Your task to perform on an android device: open the mobile data screen to see how much data has been used Image 0: 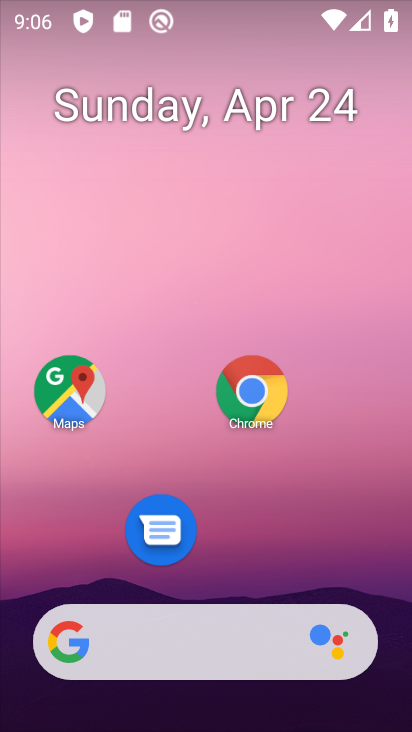
Step 0: drag from (219, 578) to (179, 32)
Your task to perform on an android device: open the mobile data screen to see how much data has been used Image 1: 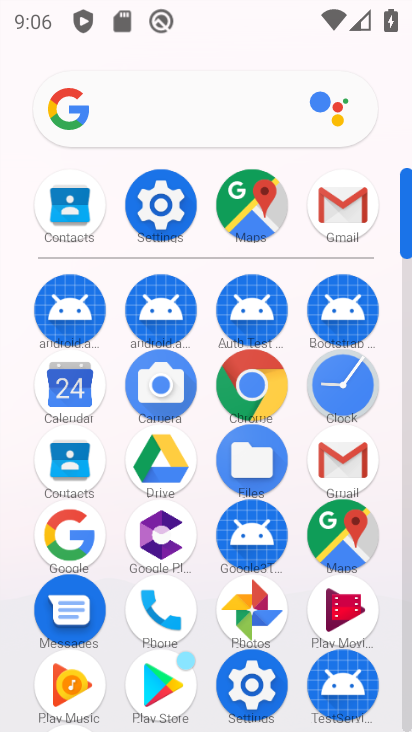
Step 1: click (144, 205)
Your task to perform on an android device: open the mobile data screen to see how much data has been used Image 2: 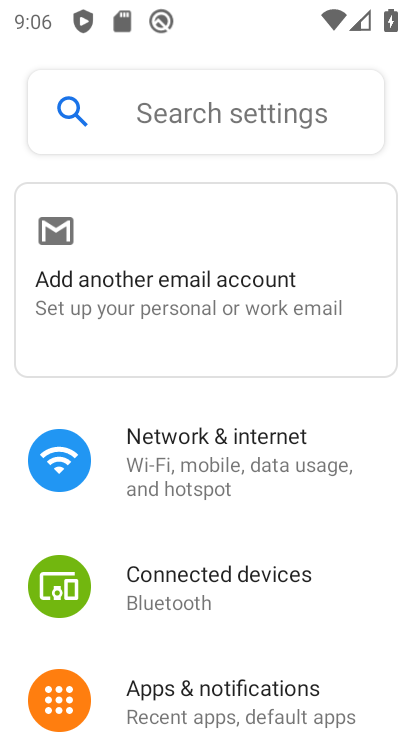
Step 2: click (186, 487)
Your task to perform on an android device: open the mobile data screen to see how much data has been used Image 3: 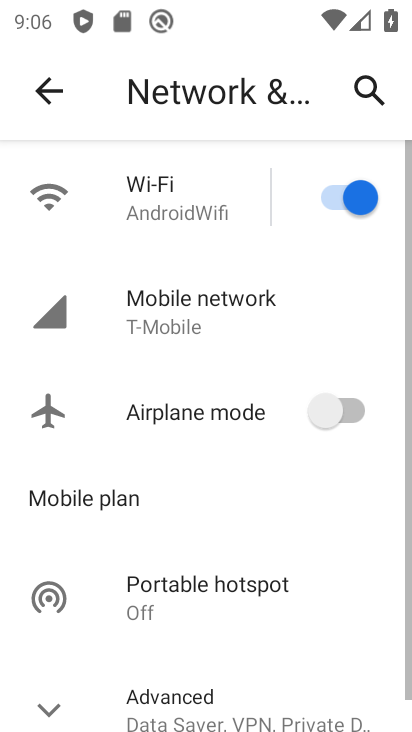
Step 3: click (195, 316)
Your task to perform on an android device: open the mobile data screen to see how much data has been used Image 4: 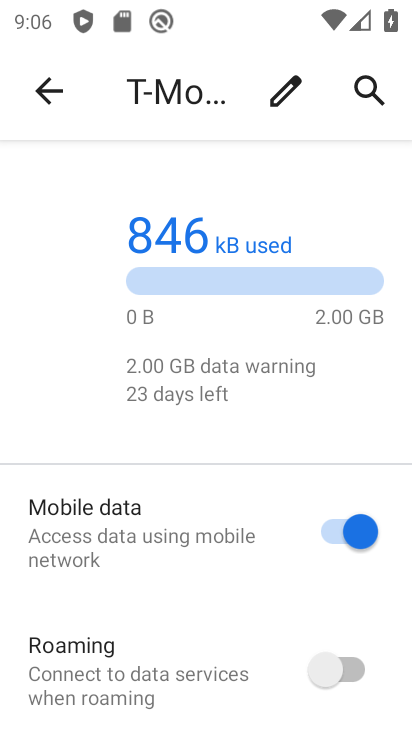
Step 4: task complete